Your task to perform on an android device: turn vacation reply on in the gmail app Image 0: 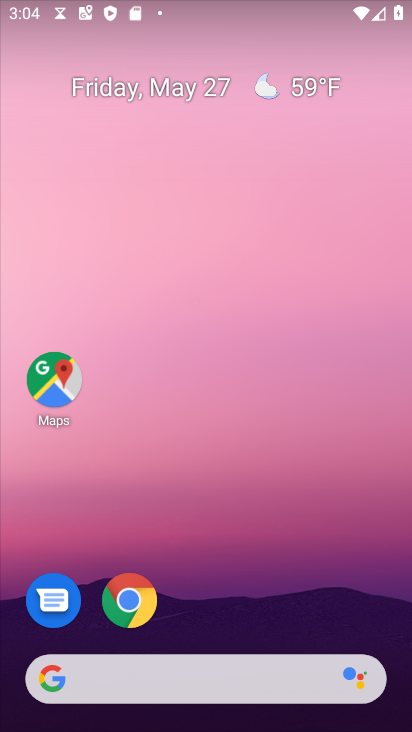
Step 0: drag from (291, 606) to (315, 119)
Your task to perform on an android device: turn vacation reply on in the gmail app Image 1: 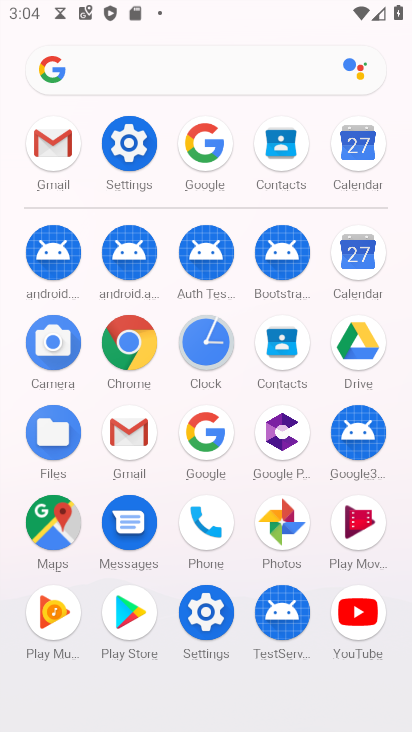
Step 1: click (52, 144)
Your task to perform on an android device: turn vacation reply on in the gmail app Image 2: 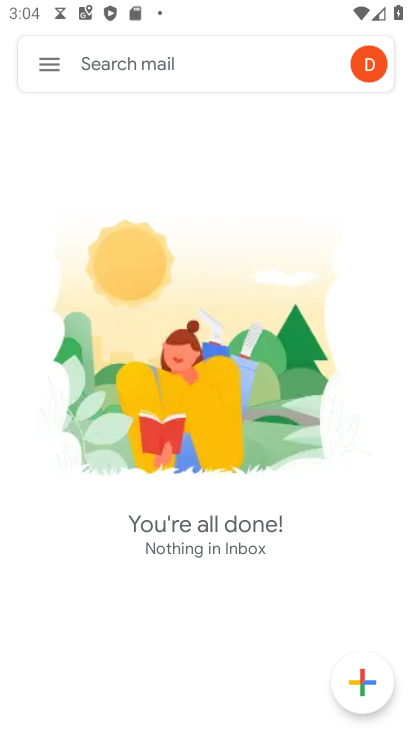
Step 2: click (45, 68)
Your task to perform on an android device: turn vacation reply on in the gmail app Image 3: 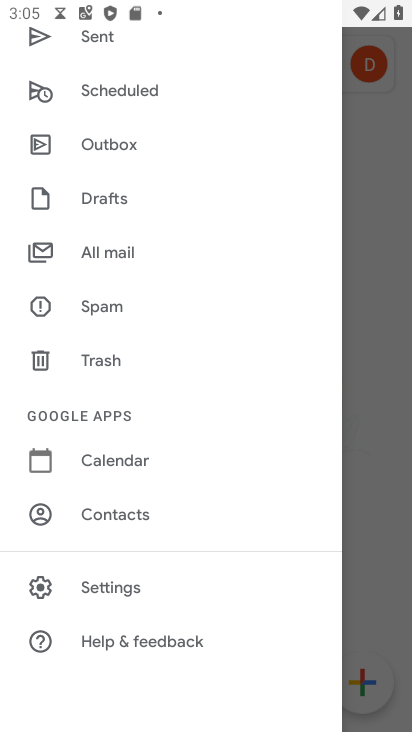
Step 3: click (125, 580)
Your task to perform on an android device: turn vacation reply on in the gmail app Image 4: 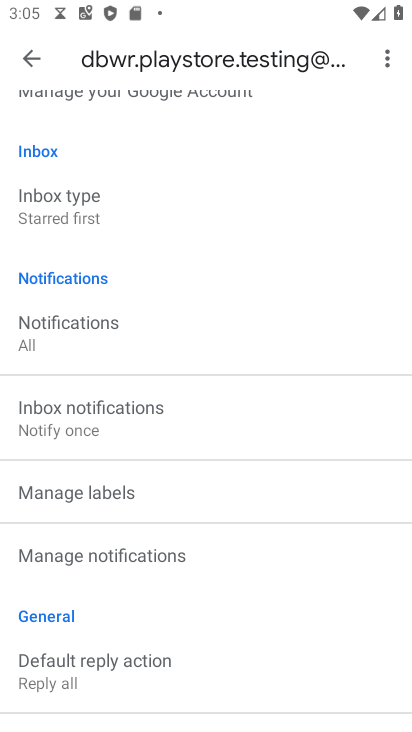
Step 4: drag from (110, 590) to (184, 445)
Your task to perform on an android device: turn vacation reply on in the gmail app Image 5: 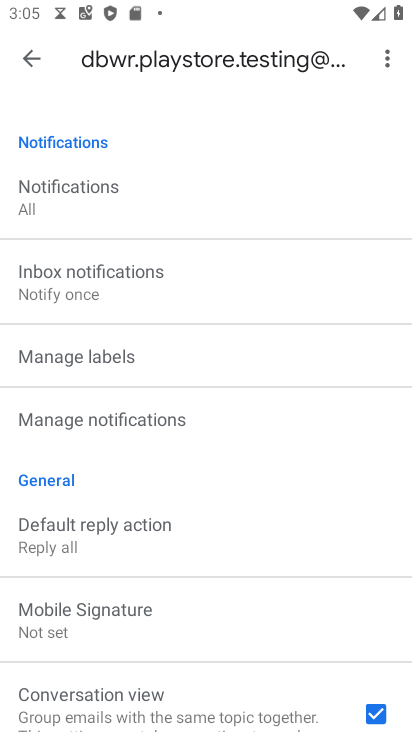
Step 5: drag from (123, 466) to (171, 332)
Your task to perform on an android device: turn vacation reply on in the gmail app Image 6: 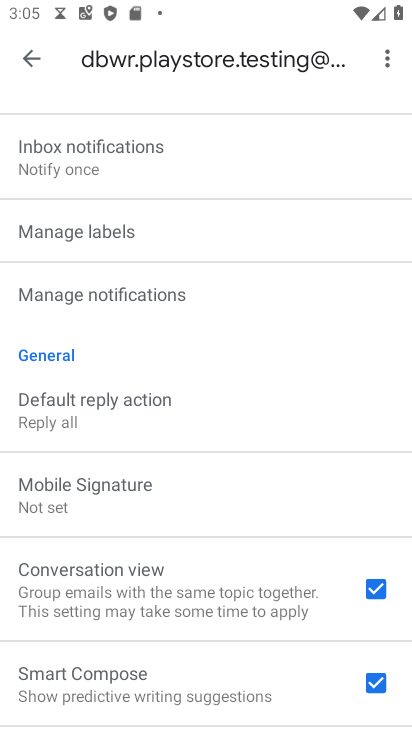
Step 6: drag from (78, 508) to (135, 368)
Your task to perform on an android device: turn vacation reply on in the gmail app Image 7: 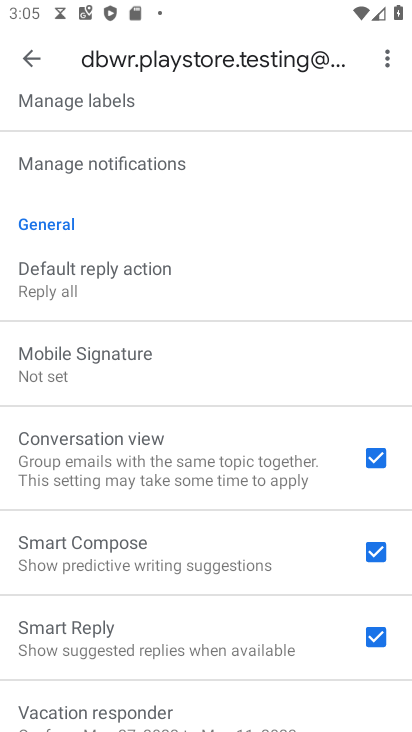
Step 7: drag from (76, 526) to (153, 392)
Your task to perform on an android device: turn vacation reply on in the gmail app Image 8: 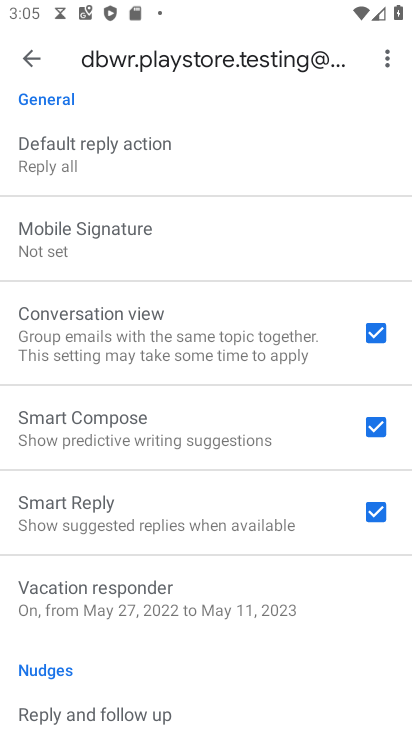
Step 8: click (115, 604)
Your task to perform on an android device: turn vacation reply on in the gmail app Image 9: 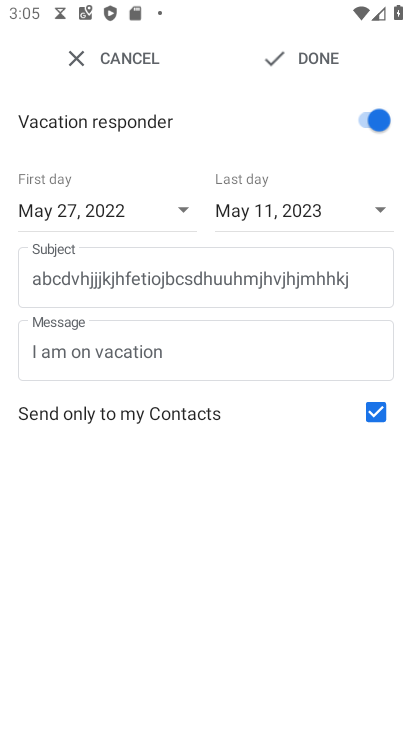
Step 9: task complete